Your task to perform on an android device: turn on priority inbox in the gmail app Image 0: 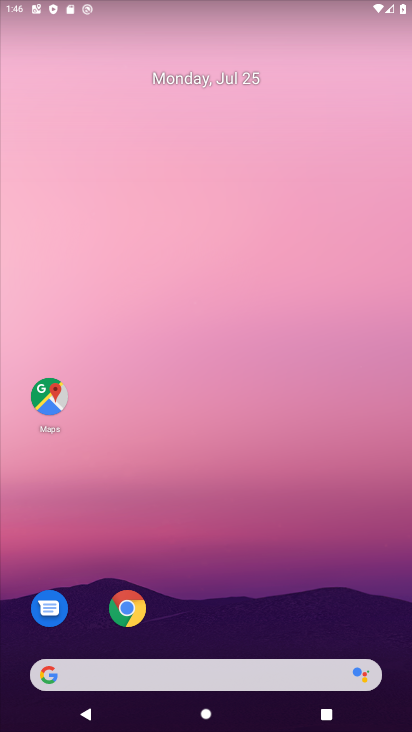
Step 0: drag from (218, 480) to (198, 103)
Your task to perform on an android device: turn on priority inbox in the gmail app Image 1: 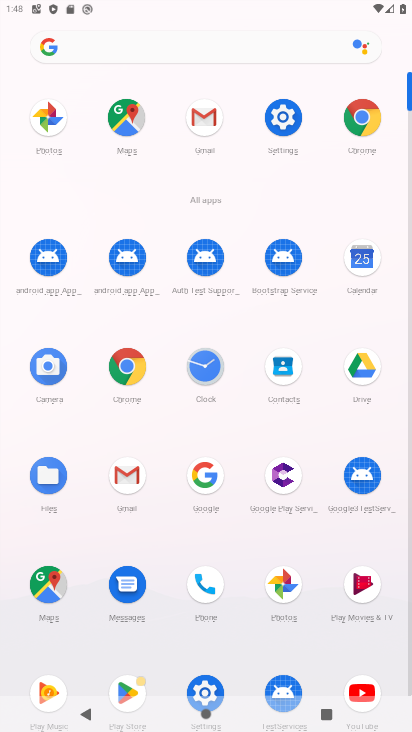
Step 1: click (132, 467)
Your task to perform on an android device: turn on priority inbox in the gmail app Image 2: 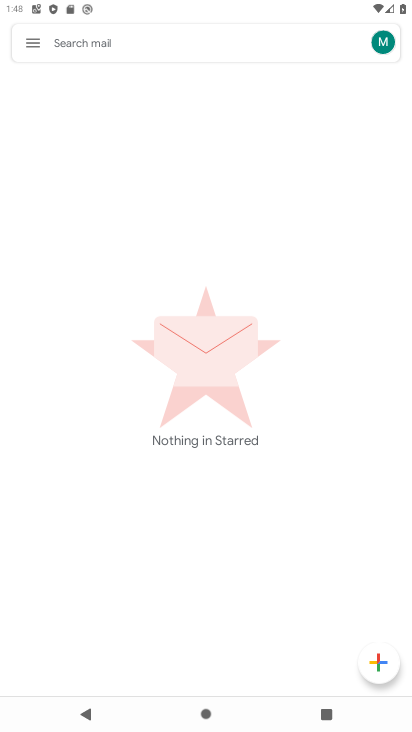
Step 2: press home button
Your task to perform on an android device: turn on priority inbox in the gmail app Image 3: 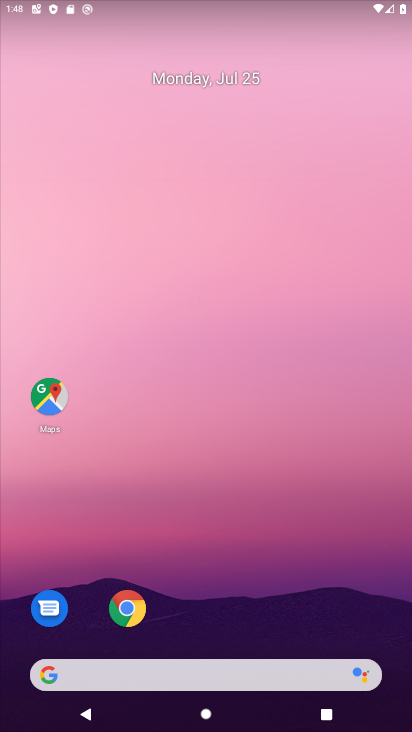
Step 3: drag from (229, 530) to (177, 196)
Your task to perform on an android device: turn on priority inbox in the gmail app Image 4: 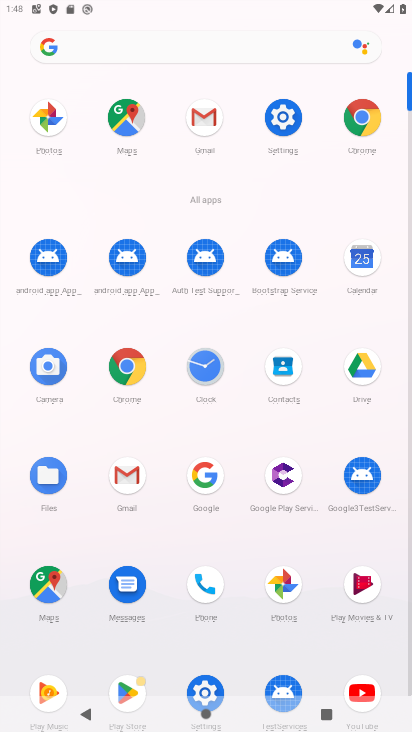
Step 4: click (205, 122)
Your task to perform on an android device: turn on priority inbox in the gmail app Image 5: 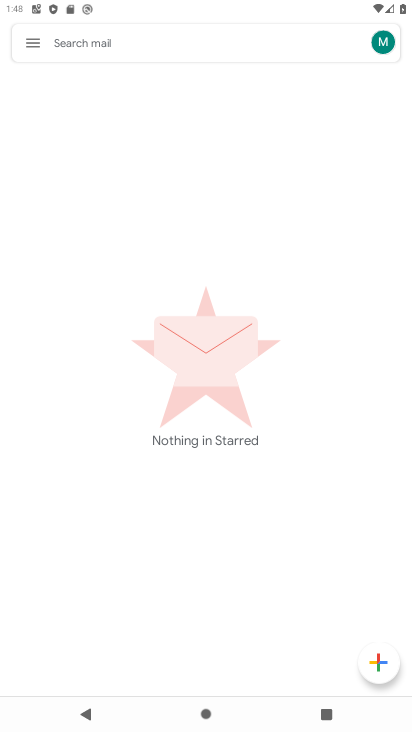
Step 5: click (35, 42)
Your task to perform on an android device: turn on priority inbox in the gmail app Image 6: 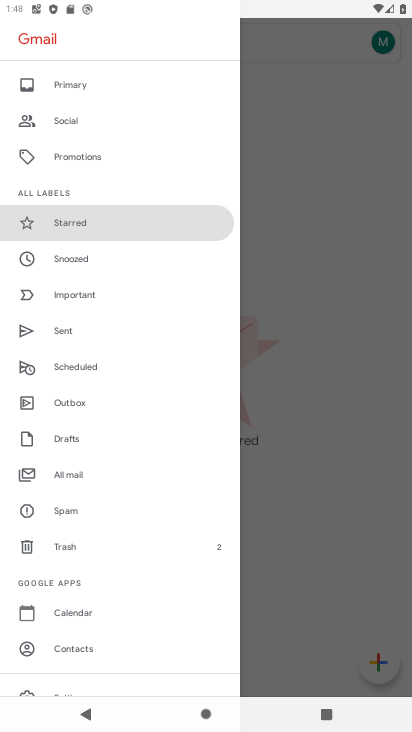
Step 6: drag from (141, 580) to (114, 203)
Your task to perform on an android device: turn on priority inbox in the gmail app Image 7: 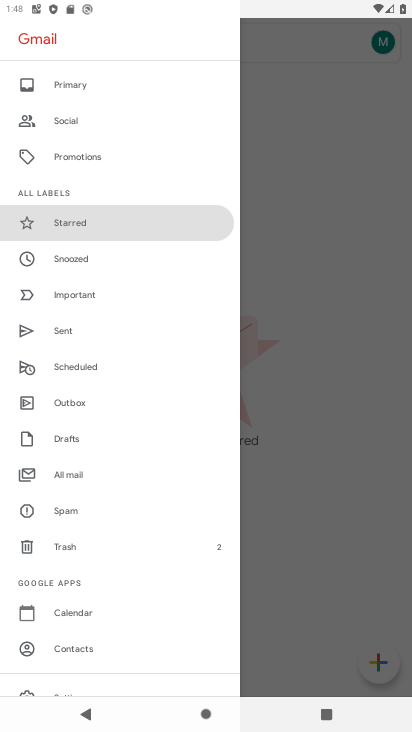
Step 7: drag from (177, 498) to (160, 226)
Your task to perform on an android device: turn on priority inbox in the gmail app Image 8: 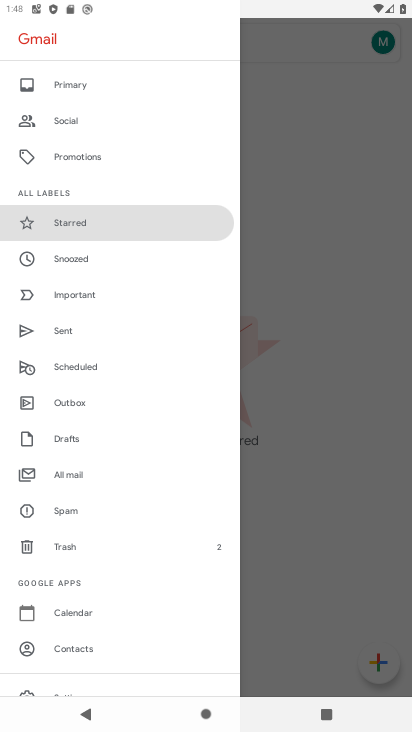
Step 8: drag from (136, 571) to (154, 262)
Your task to perform on an android device: turn on priority inbox in the gmail app Image 9: 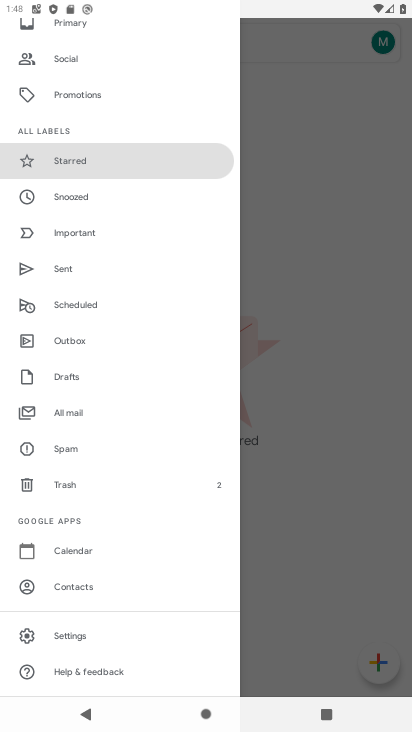
Step 9: click (77, 638)
Your task to perform on an android device: turn on priority inbox in the gmail app Image 10: 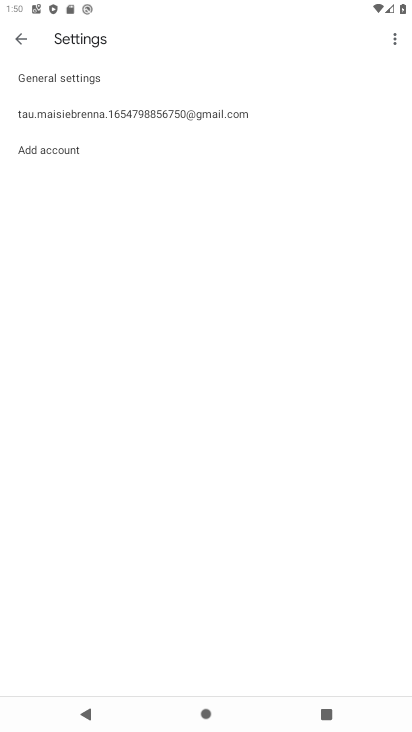
Step 10: task complete